Your task to perform on an android device: change notification settings in the gmail app Image 0: 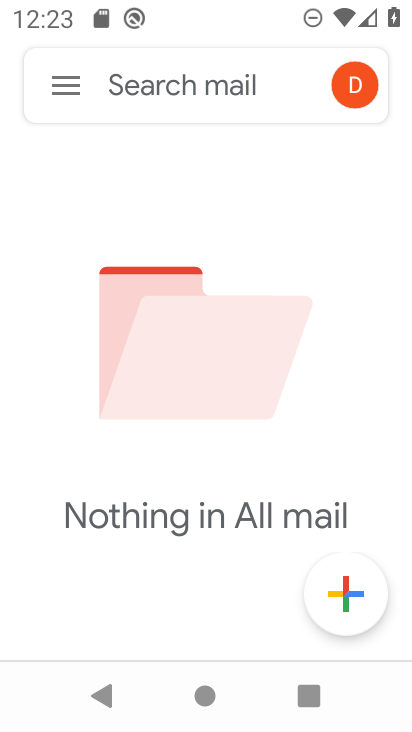
Step 0: press home button
Your task to perform on an android device: change notification settings in the gmail app Image 1: 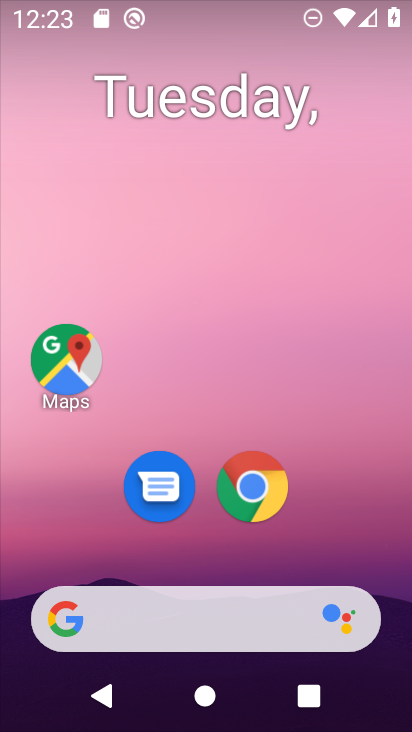
Step 1: drag from (232, 574) to (205, 254)
Your task to perform on an android device: change notification settings in the gmail app Image 2: 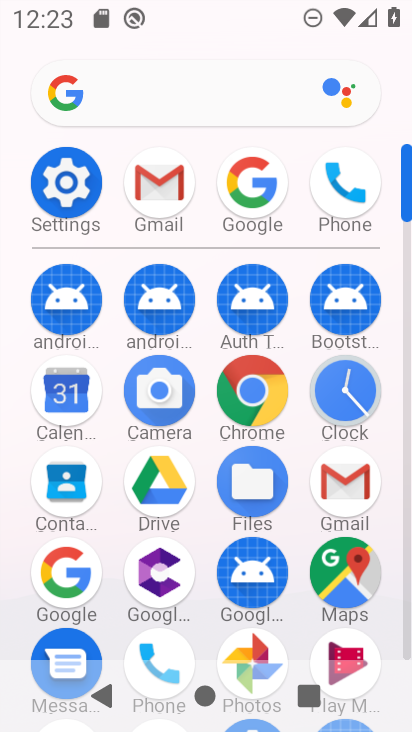
Step 2: drag from (203, 270) to (201, 141)
Your task to perform on an android device: change notification settings in the gmail app Image 3: 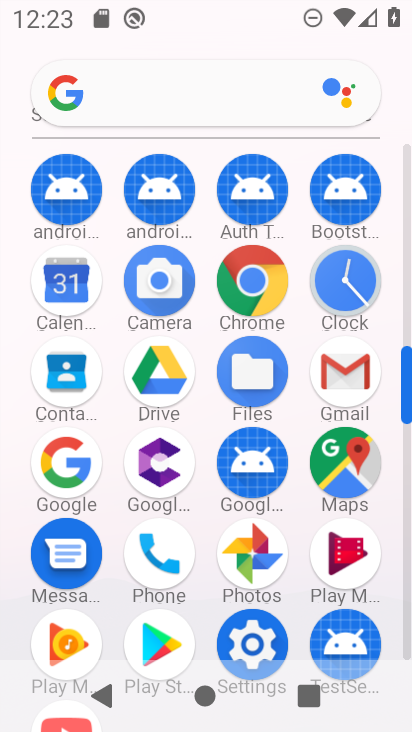
Step 3: click (349, 386)
Your task to perform on an android device: change notification settings in the gmail app Image 4: 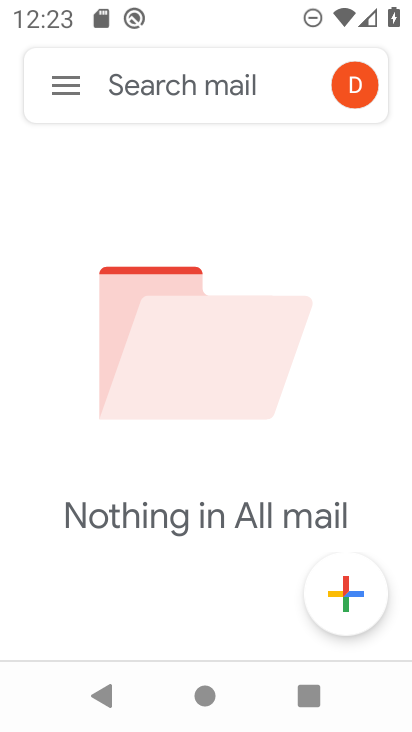
Step 4: click (68, 89)
Your task to perform on an android device: change notification settings in the gmail app Image 5: 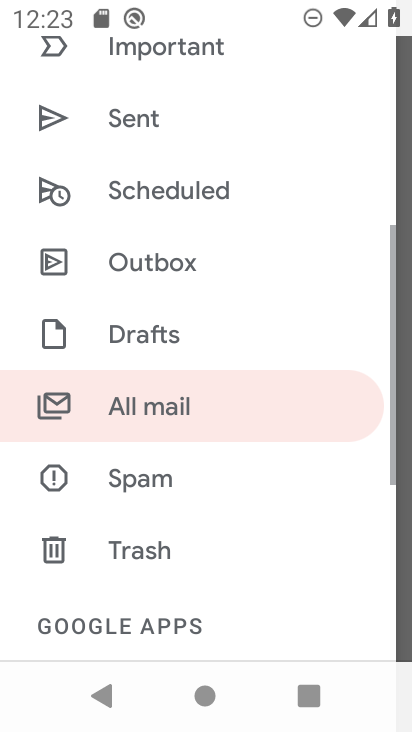
Step 5: drag from (121, 482) to (116, 156)
Your task to perform on an android device: change notification settings in the gmail app Image 6: 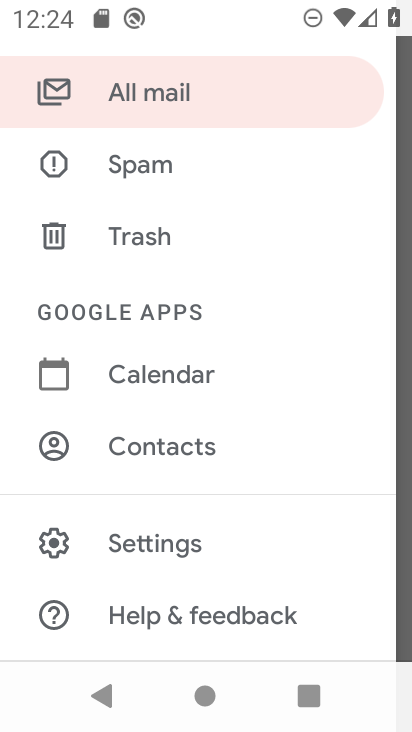
Step 6: click (151, 543)
Your task to perform on an android device: change notification settings in the gmail app Image 7: 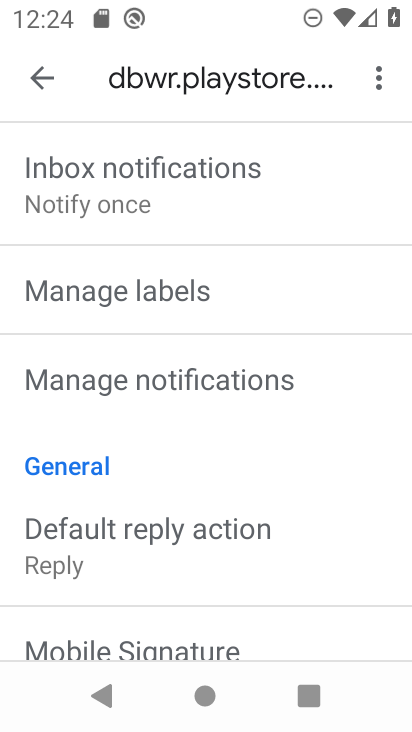
Step 7: click (157, 381)
Your task to perform on an android device: change notification settings in the gmail app Image 8: 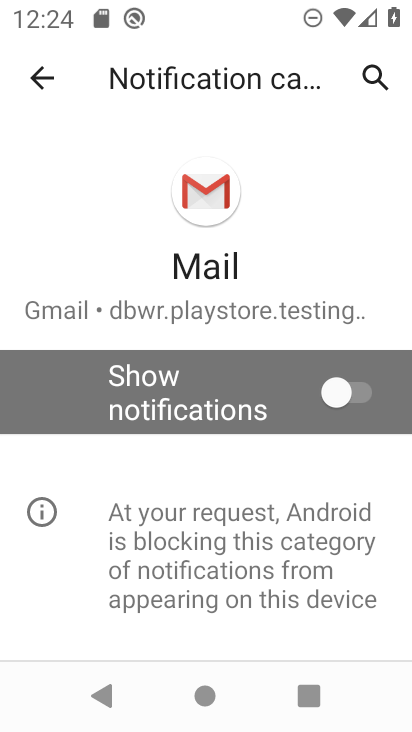
Step 8: drag from (180, 522) to (196, 294)
Your task to perform on an android device: change notification settings in the gmail app Image 9: 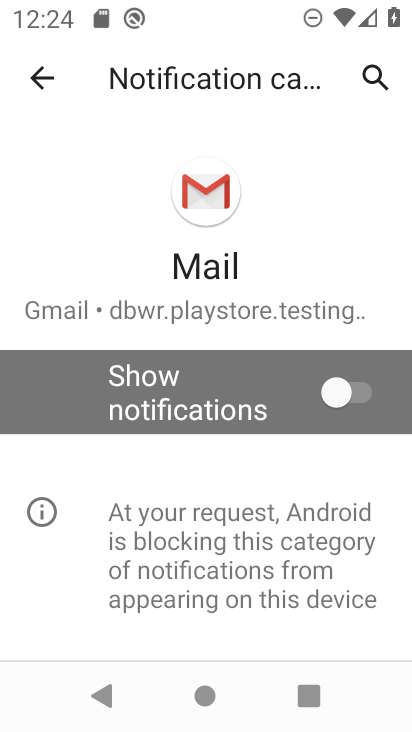
Step 9: click (327, 398)
Your task to perform on an android device: change notification settings in the gmail app Image 10: 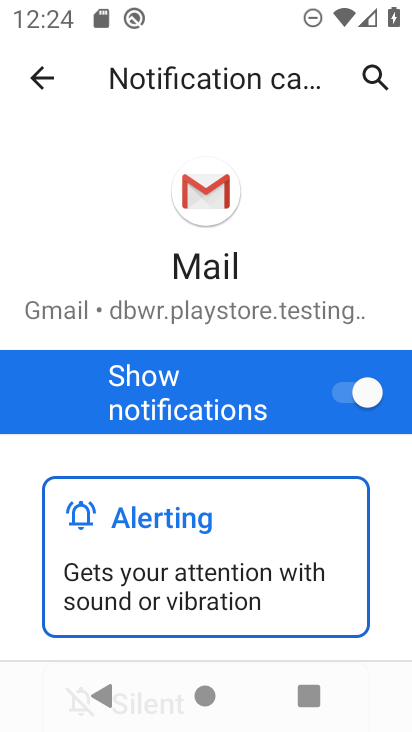
Step 10: task complete